Your task to perform on an android device: Open calendar and show me the third week of next month Image 0: 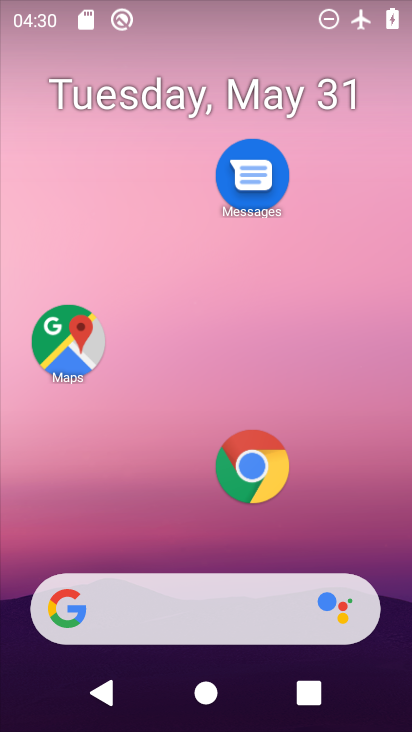
Step 0: drag from (151, 539) to (241, 62)
Your task to perform on an android device: Open calendar and show me the third week of next month Image 1: 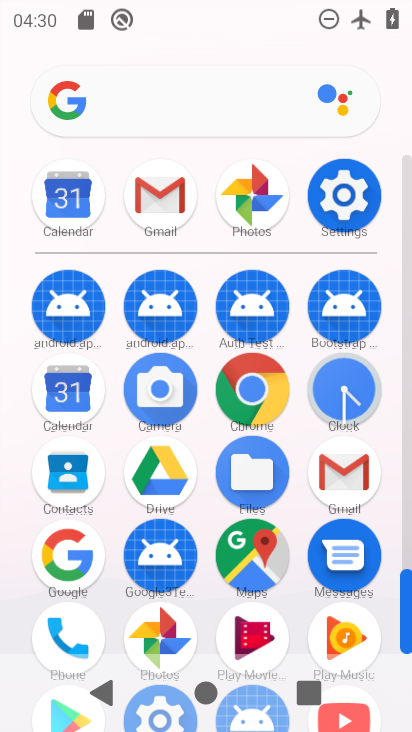
Step 1: click (61, 393)
Your task to perform on an android device: Open calendar and show me the third week of next month Image 2: 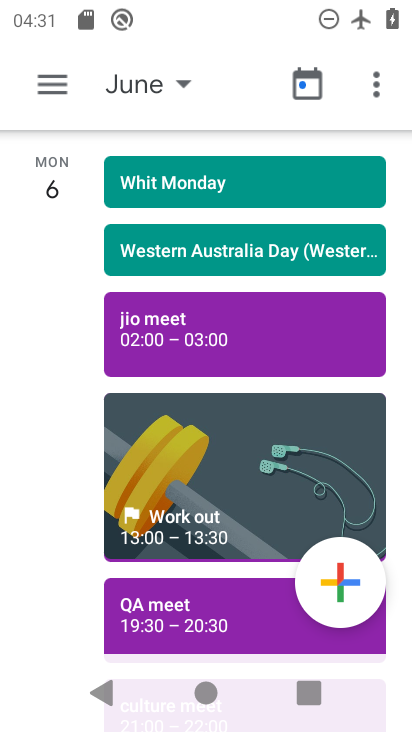
Step 2: click (173, 89)
Your task to perform on an android device: Open calendar and show me the third week of next month Image 3: 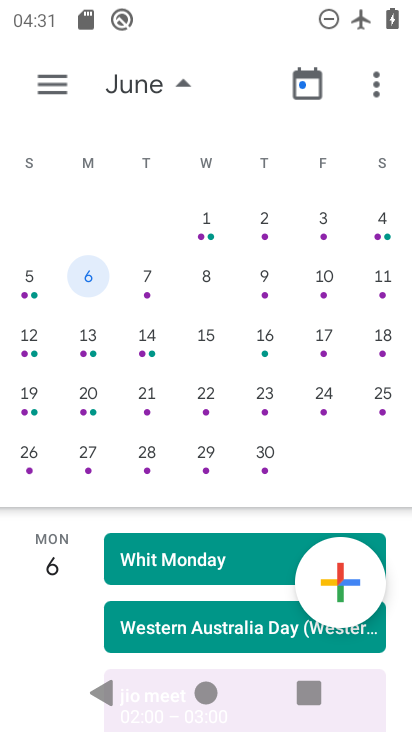
Step 3: click (77, 329)
Your task to perform on an android device: Open calendar and show me the third week of next month Image 4: 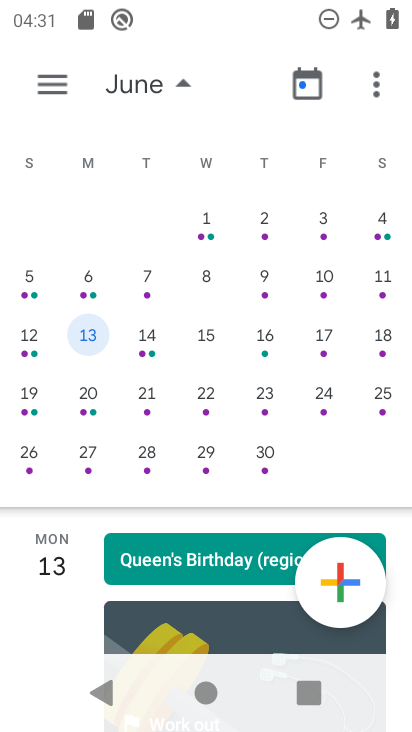
Step 4: task complete